Your task to perform on an android device: add a label to a message in the gmail app Image 0: 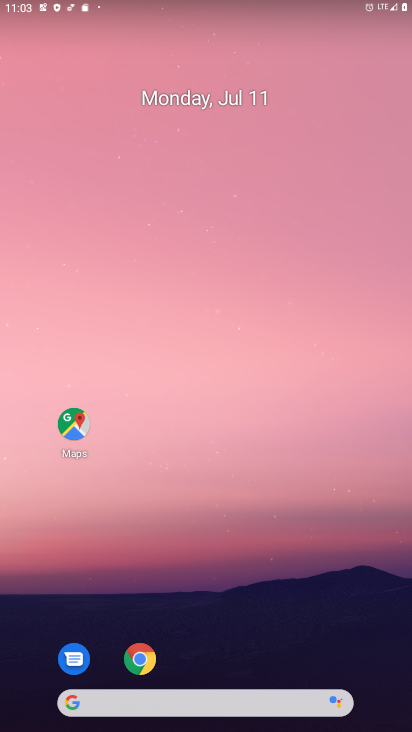
Step 0: drag from (200, 631) to (184, 327)
Your task to perform on an android device: add a label to a message in the gmail app Image 1: 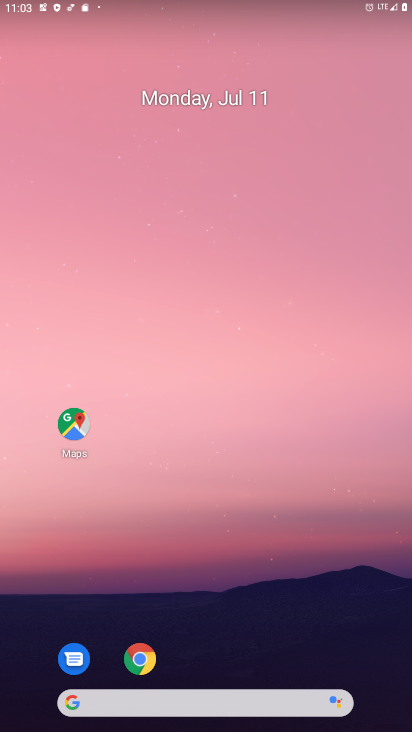
Step 1: drag from (192, 644) to (395, 36)
Your task to perform on an android device: add a label to a message in the gmail app Image 2: 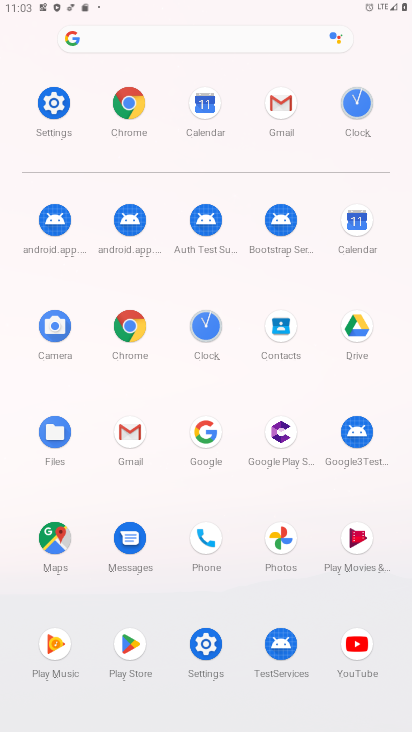
Step 2: click (131, 431)
Your task to perform on an android device: add a label to a message in the gmail app Image 3: 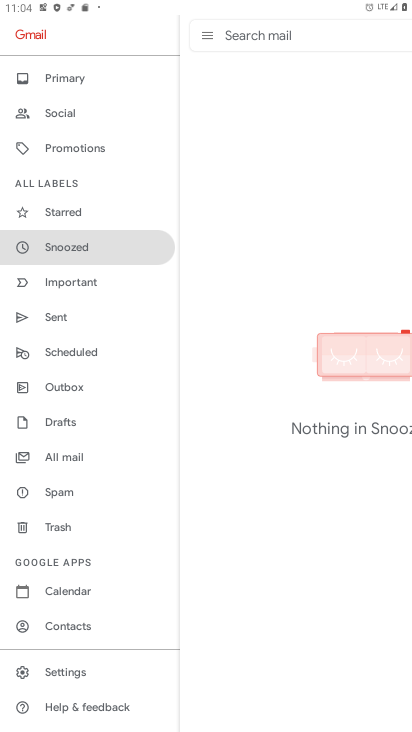
Step 3: click (346, 455)
Your task to perform on an android device: add a label to a message in the gmail app Image 4: 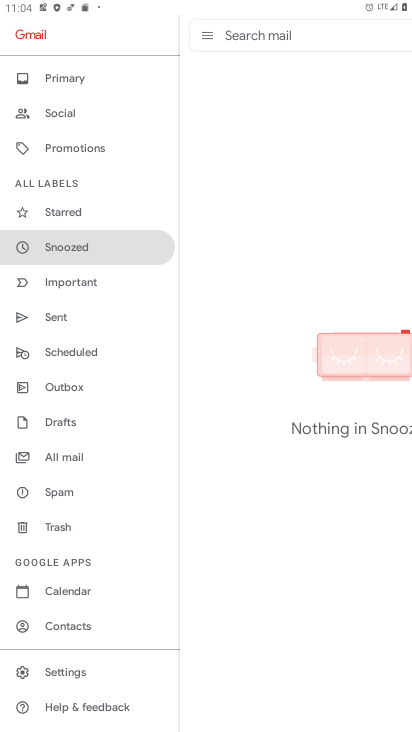
Step 4: task complete